Your task to perform on an android device: turn smart compose on in the gmail app Image 0: 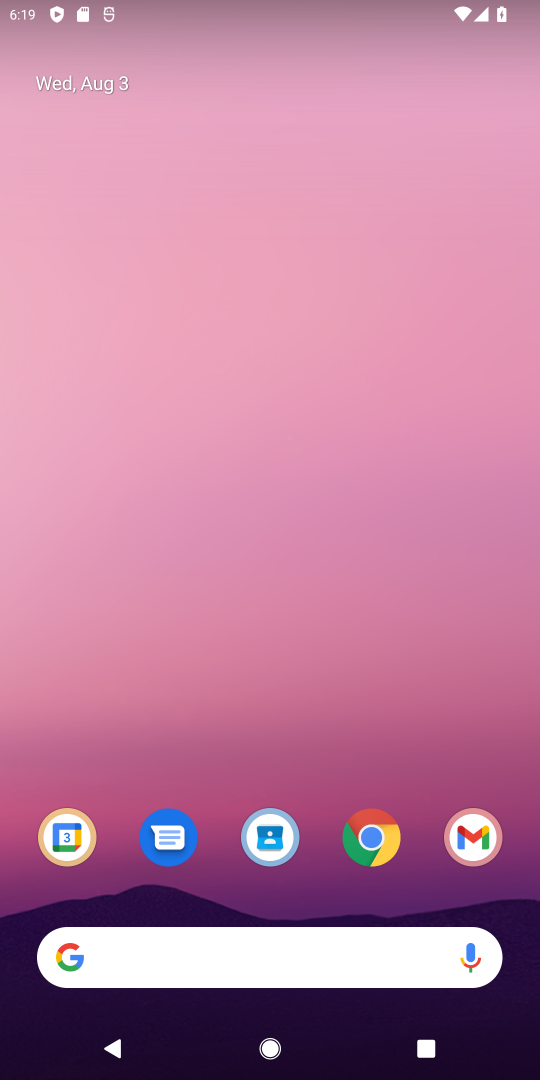
Step 0: press home button
Your task to perform on an android device: turn smart compose on in the gmail app Image 1: 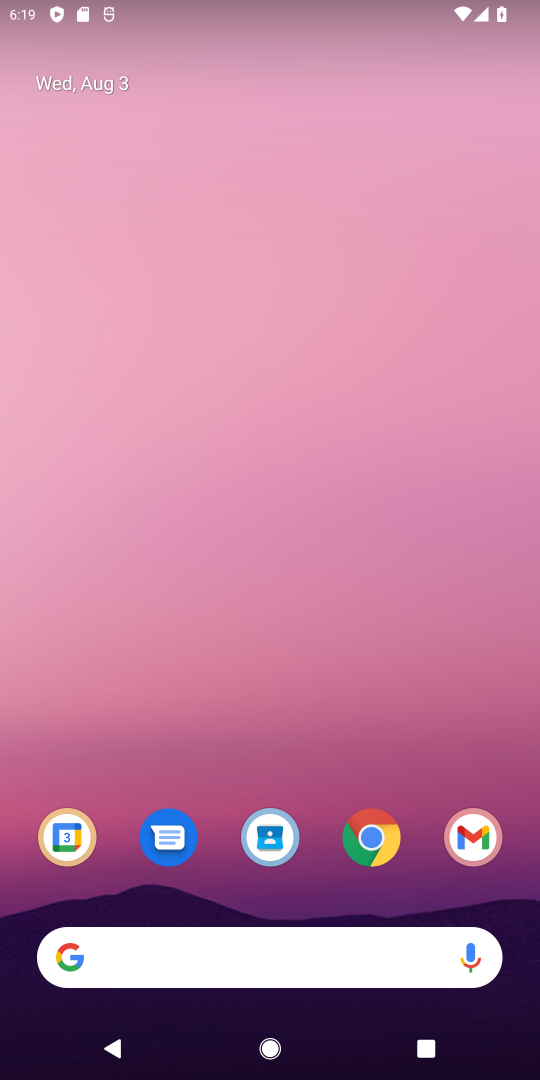
Step 1: drag from (344, 751) to (311, 111)
Your task to perform on an android device: turn smart compose on in the gmail app Image 2: 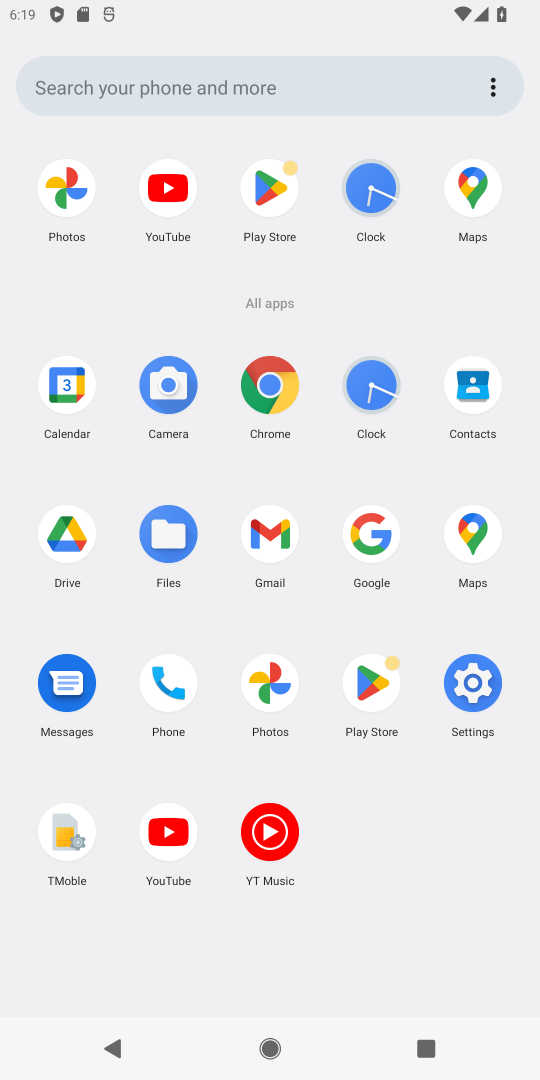
Step 2: click (265, 544)
Your task to perform on an android device: turn smart compose on in the gmail app Image 3: 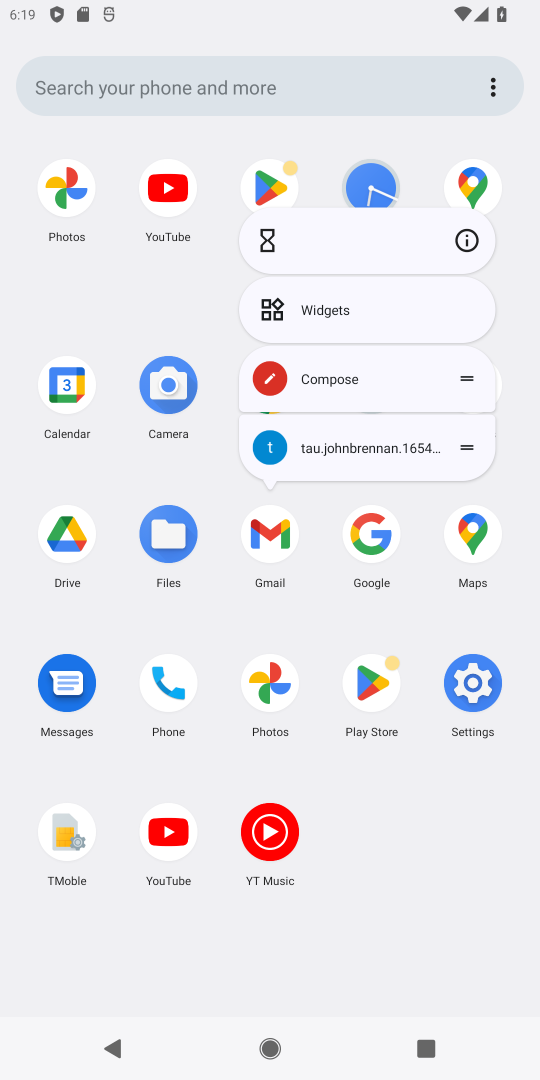
Step 3: click (265, 544)
Your task to perform on an android device: turn smart compose on in the gmail app Image 4: 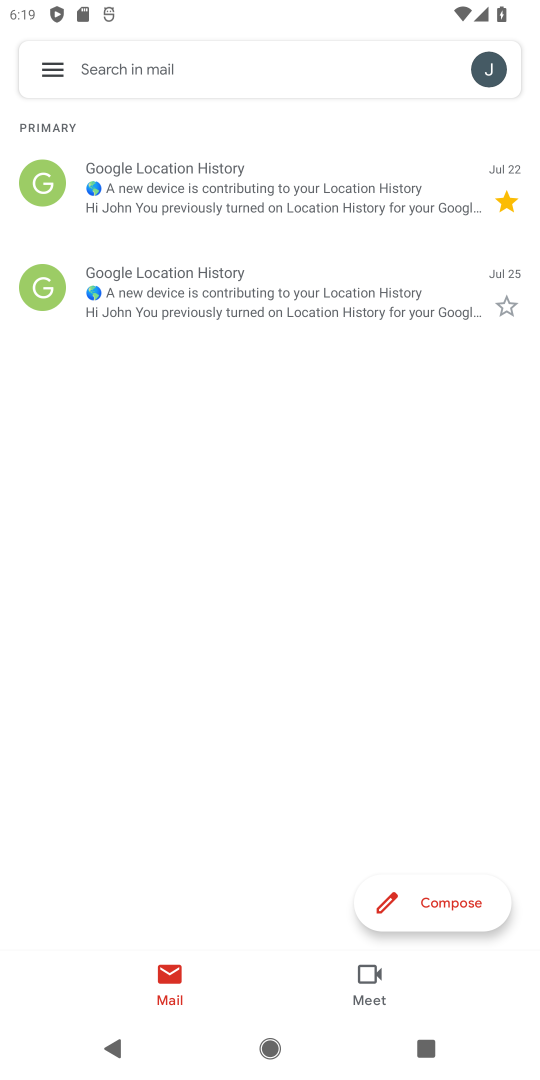
Step 4: click (56, 66)
Your task to perform on an android device: turn smart compose on in the gmail app Image 5: 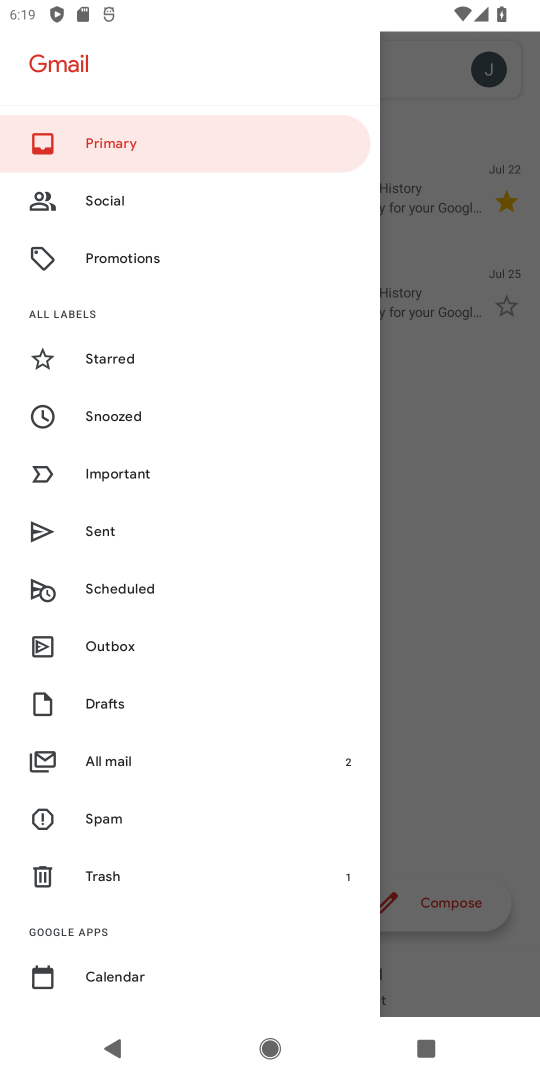
Step 5: drag from (150, 924) to (168, 366)
Your task to perform on an android device: turn smart compose on in the gmail app Image 6: 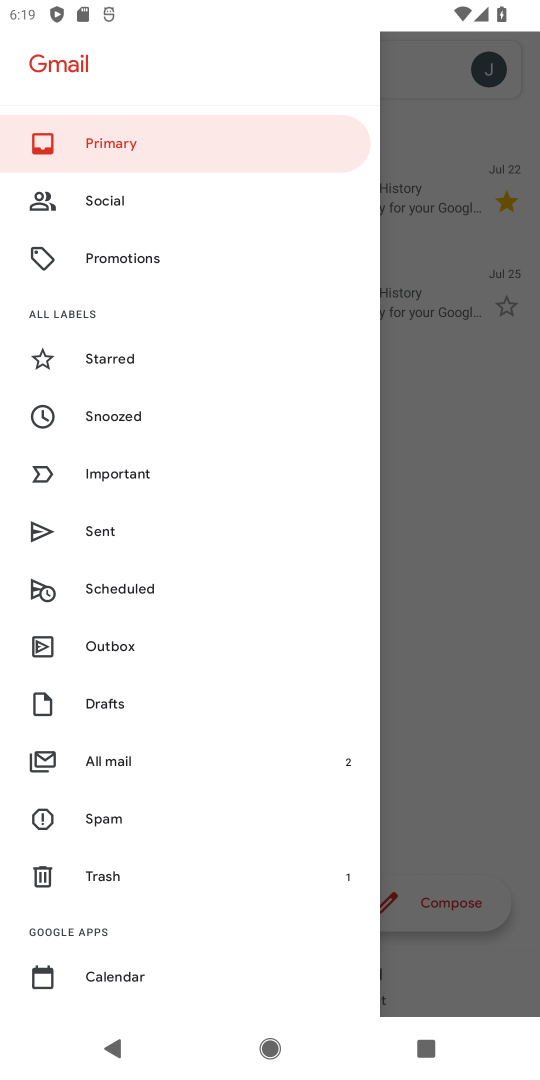
Step 6: drag from (157, 937) to (214, 403)
Your task to perform on an android device: turn smart compose on in the gmail app Image 7: 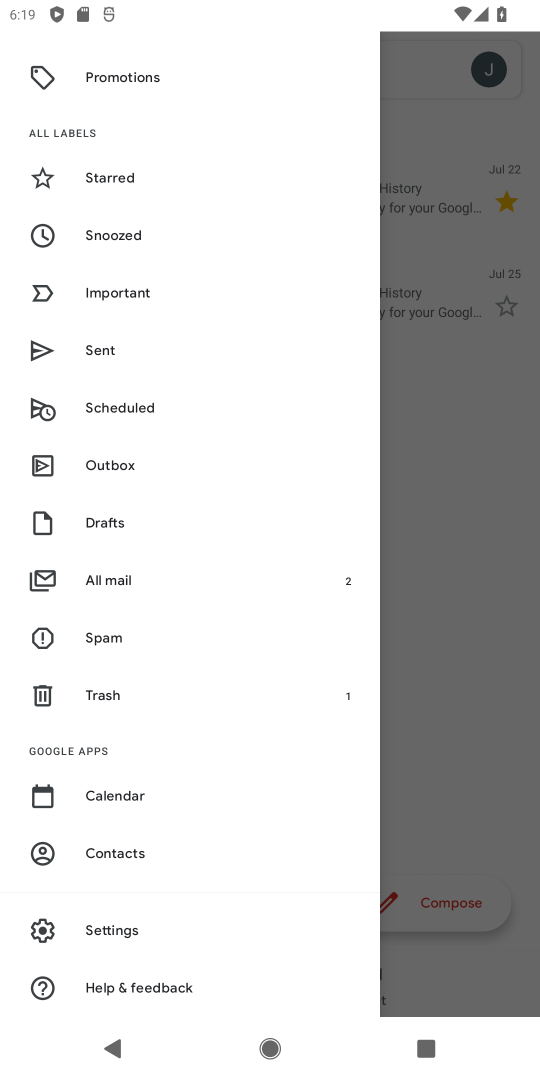
Step 7: click (134, 916)
Your task to perform on an android device: turn smart compose on in the gmail app Image 8: 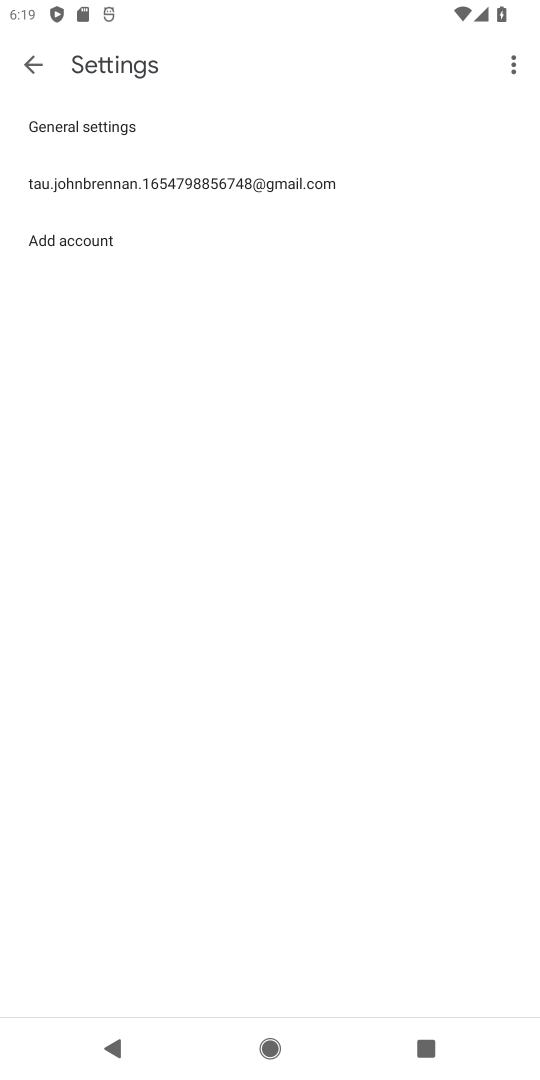
Step 8: click (96, 172)
Your task to perform on an android device: turn smart compose on in the gmail app Image 9: 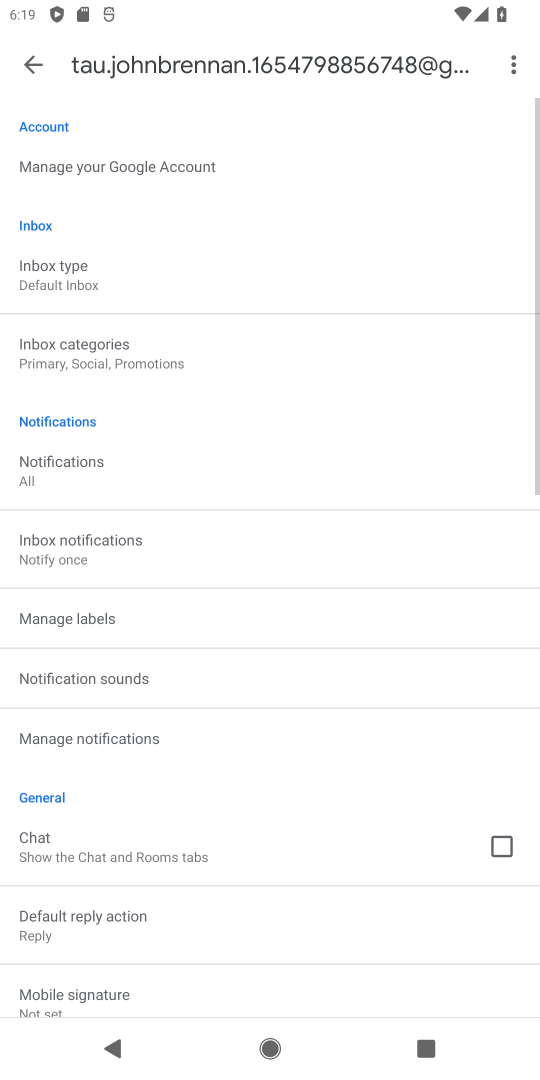
Step 9: task complete